Your task to perform on an android device: check data usage Image 0: 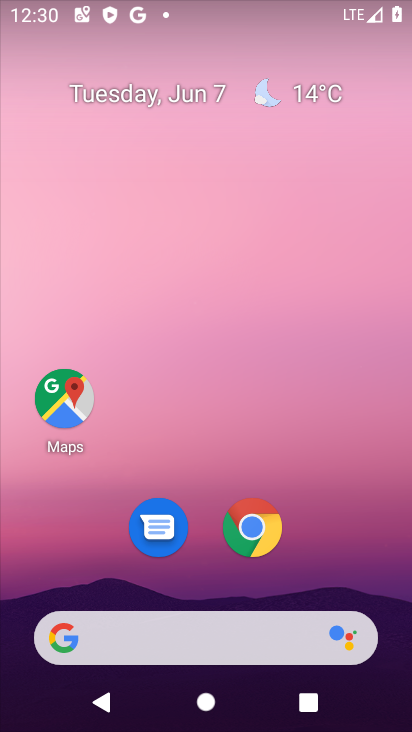
Step 0: drag from (315, 549) to (236, 32)
Your task to perform on an android device: check data usage Image 1: 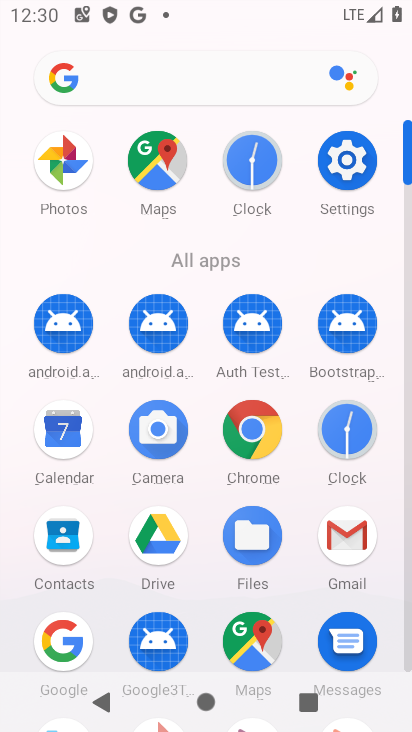
Step 1: click (347, 158)
Your task to perform on an android device: check data usage Image 2: 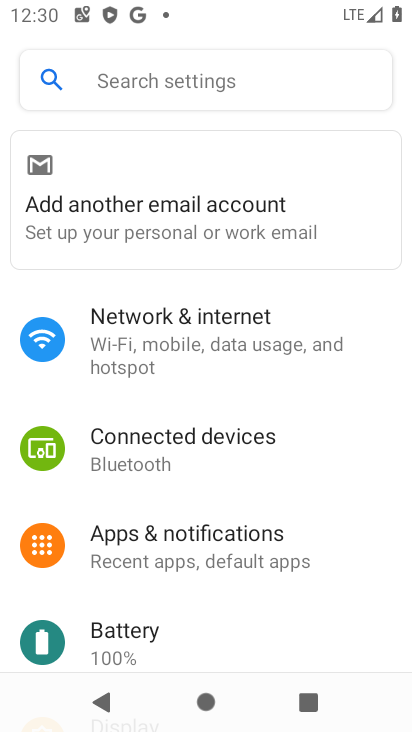
Step 2: click (200, 337)
Your task to perform on an android device: check data usage Image 3: 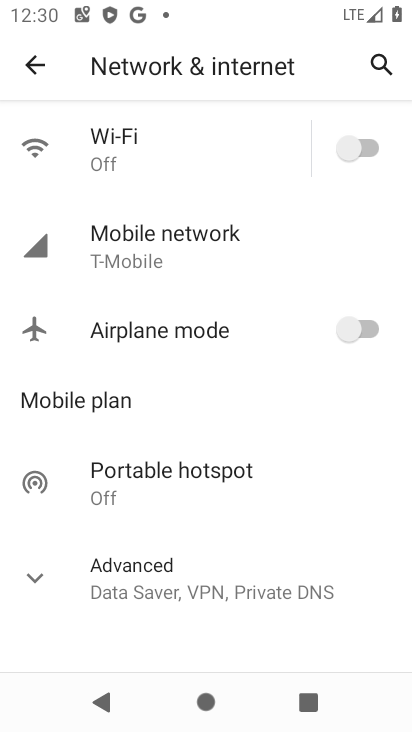
Step 3: click (32, 571)
Your task to perform on an android device: check data usage Image 4: 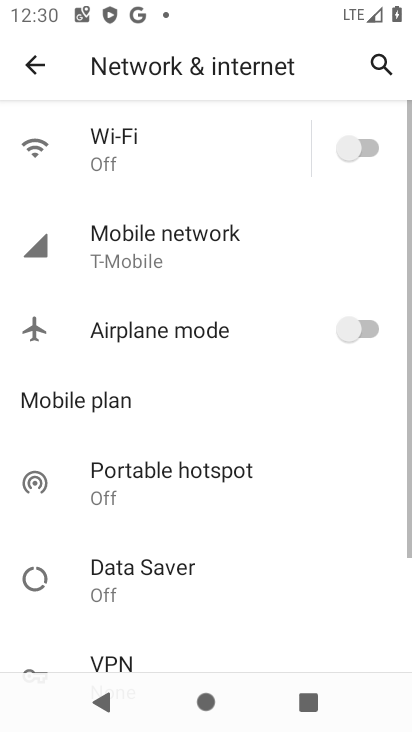
Step 4: click (162, 252)
Your task to perform on an android device: check data usage Image 5: 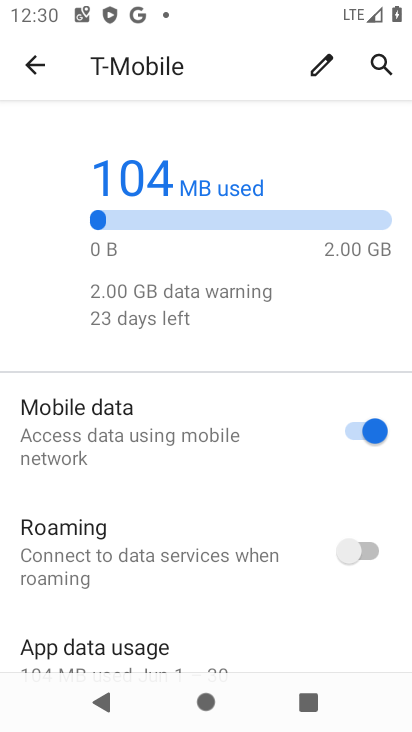
Step 5: task complete